Your task to perform on an android device: Open Google Chrome and click the shortcut for Amazon.com Image 0: 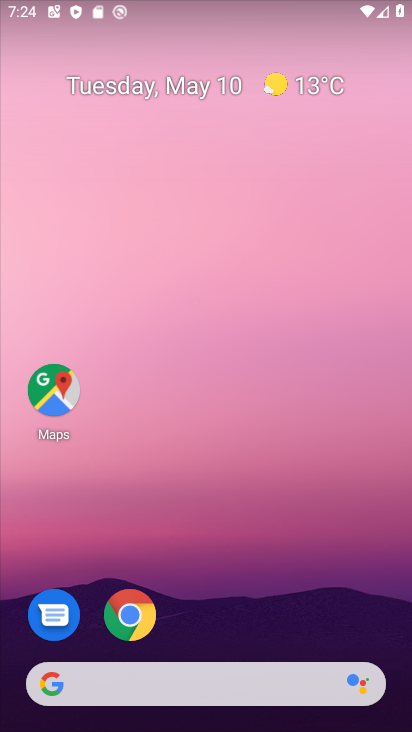
Step 0: drag from (321, 513) to (373, 6)
Your task to perform on an android device: Open Google Chrome and click the shortcut for Amazon.com Image 1: 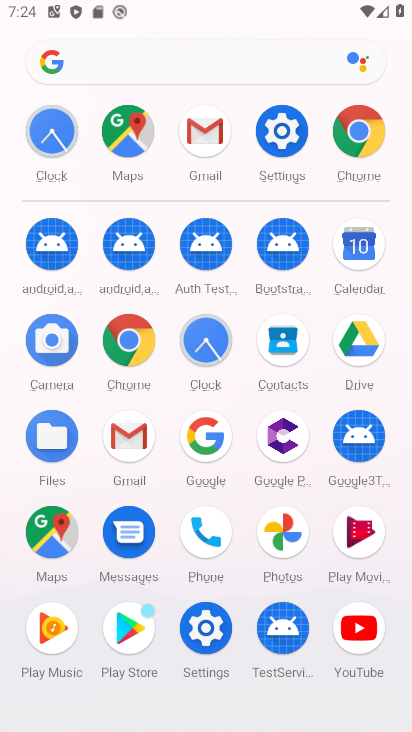
Step 1: click (369, 133)
Your task to perform on an android device: Open Google Chrome and click the shortcut for Amazon.com Image 2: 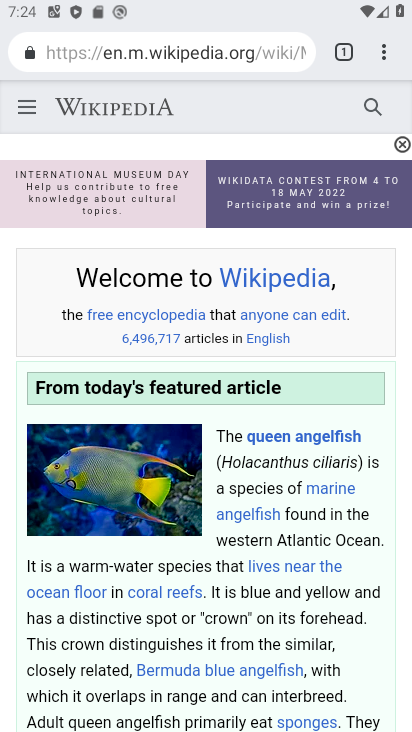
Step 2: click (245, 57)
Your task to perform on an android device: Open Google Chrome and click the shortcut for Amazon.com Image 3: 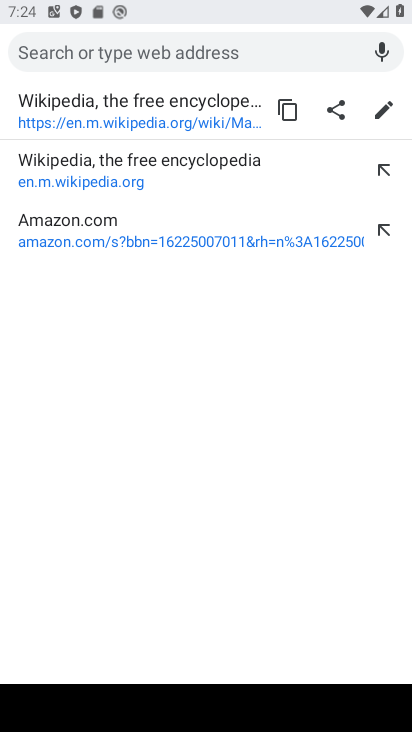
Step 3: click (150, 220)
Your task to perform on an android device: Open Google Chrome and click the shortcut for Amazon.com Image 4: 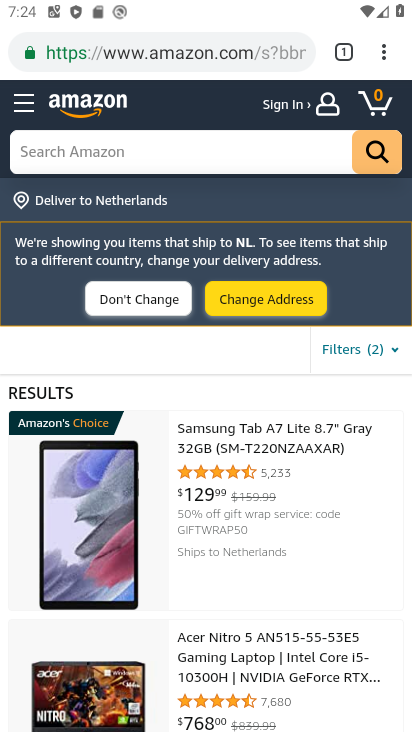
Step 4: drag from (383, 53) to (248, 514)
Your task to perform on an android device: Open Google Chrome and click the shortcut for Amazon.com Image 5: 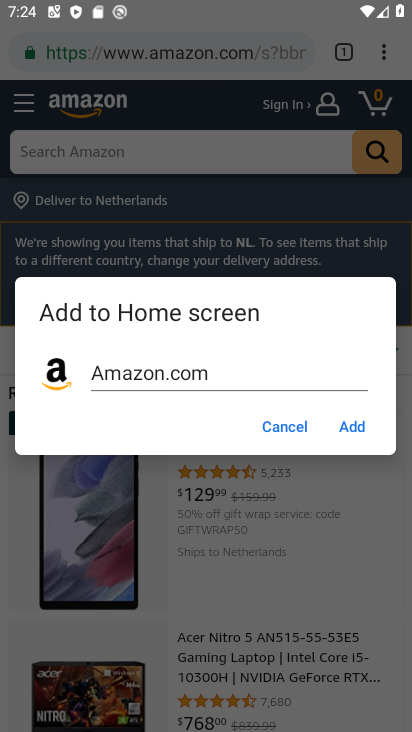
Step 5: click (344, 422)
Your task to perform on an android device: Open Google Chrome and click the shortcut for Amazon.com Image 6: 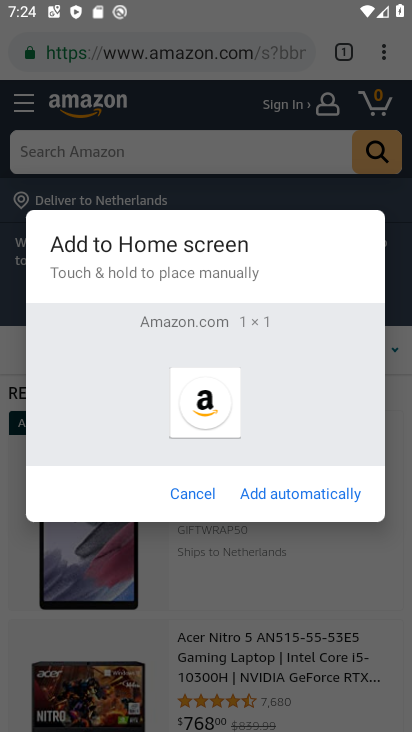
Step 6: click (285, 500)
Your task to perform on an android device: Open Google Chrome and click the shortcut for Amazon.com Image 7: 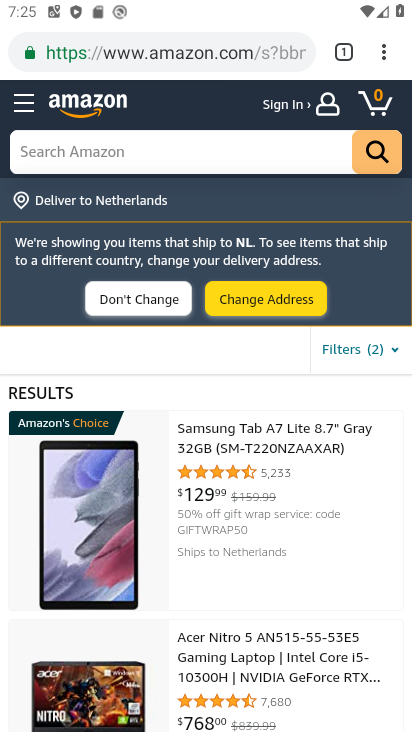
Step 7: task complete